Your task to perform on an android device: change your default location settings in chrome Image 0: 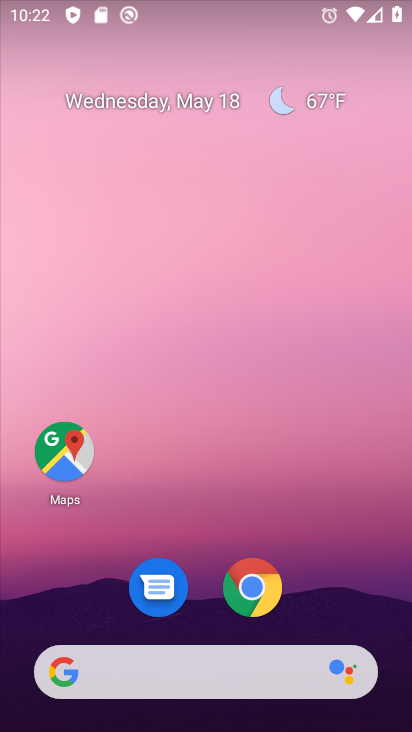
Step 0: click (250, 576)
Your task to perform on an android device: change your default location settings in chrome Image 1: 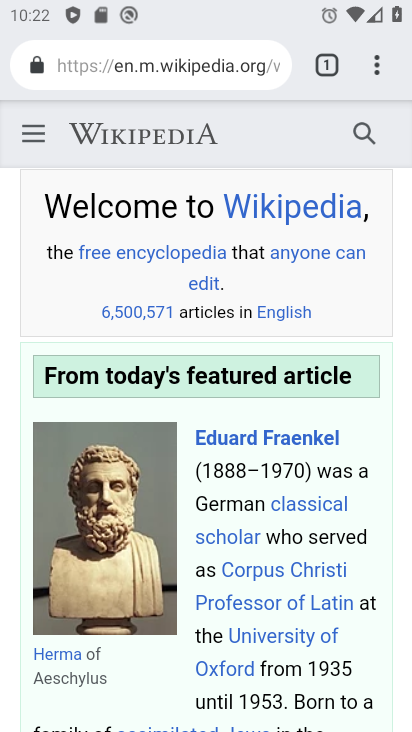
Step 1: click (374, 51)
Your task to perform on an android device: change your default location settings in chrome Image 2: 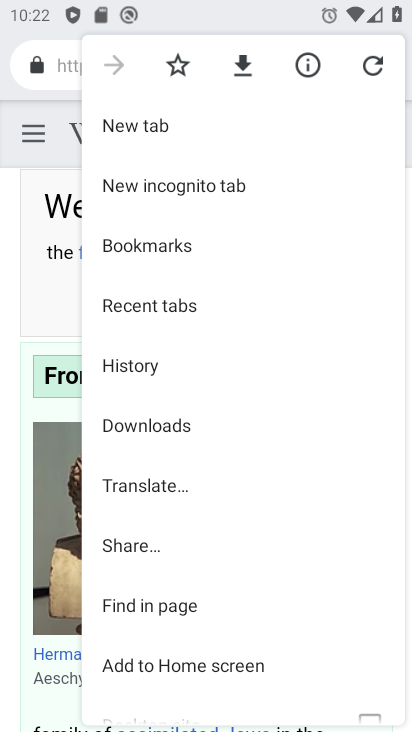
Step 2: drag from (261, 603) to (257, 200)
Your task to perform on an android device: change your default location settings in chrome Image 3: 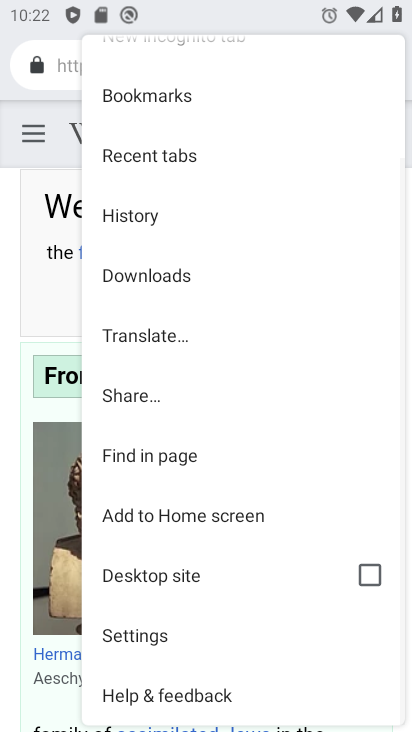
Step 3: drag from (233, 589) to (261, 173)
Your task to perform on an android device: change your default location settings in chrome Image 4: 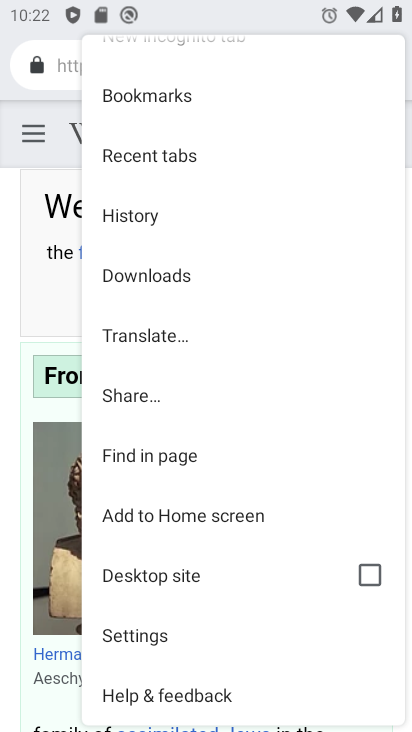
Step 4: click (159, 626)
Your task to perform on an android device: change your default location settings in chrome Image 5: 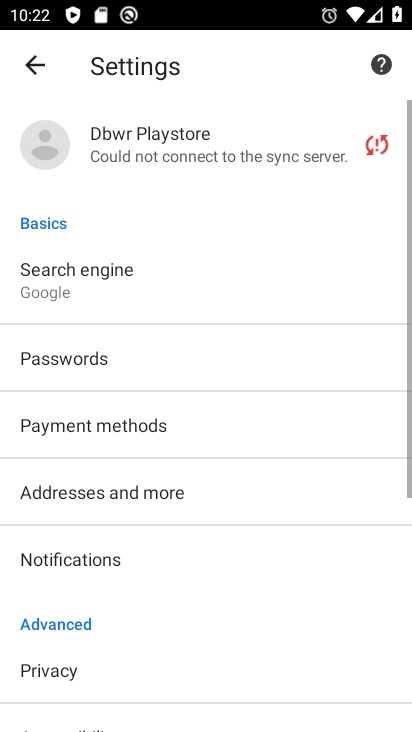
Step 5: drag from (168, 636) to (187, 244)
Your task to perform on an android device: change your default location settings in chrome Image 6: 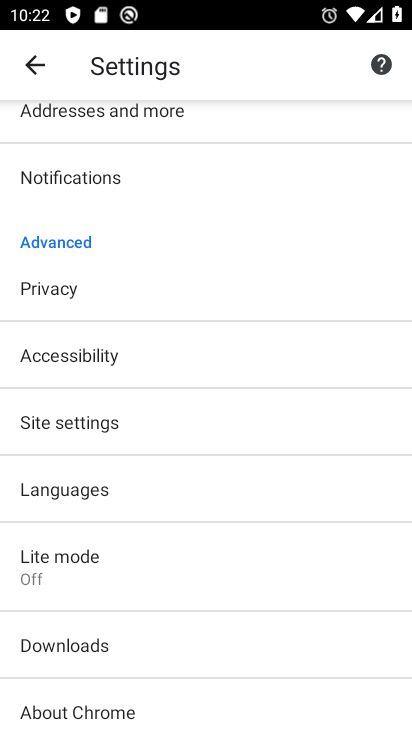
Step 6: drag from (224, 615) to (257, 365)
Your task to perform on an android device: change your default location settings in chrome Image 7: 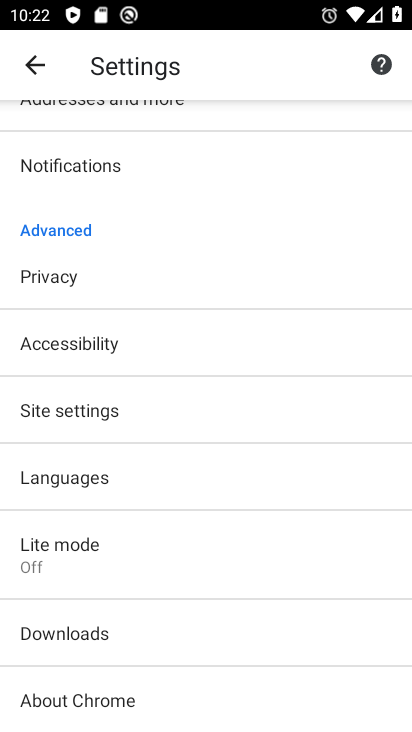
Step 7: drag from (125, 620) to (174, 403)
Your task to perform on an android device: change your default location settings in chrome Image 8: 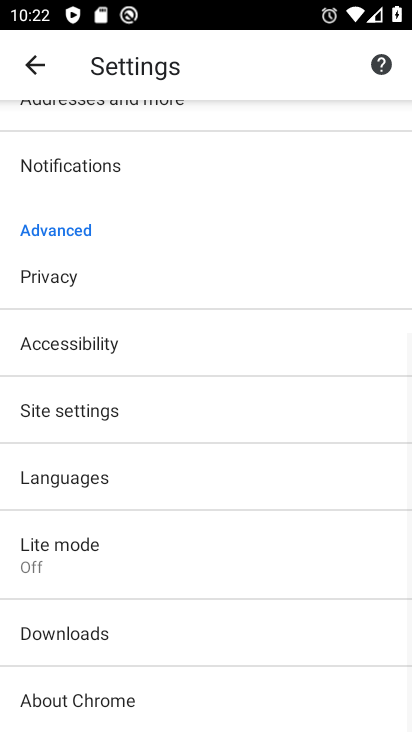
Step 8: drag from (218, 211) to (200, 674)
Your task to perform on an android device: change your default location settings in chrome Image 9: 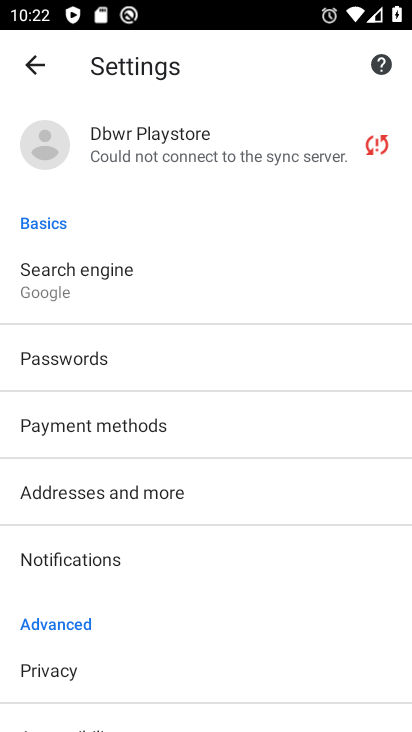
Step 9: drag from (178, 611) to (218, 276)
Your task to perform on an android device: change your default location settings in chrome Image 10: 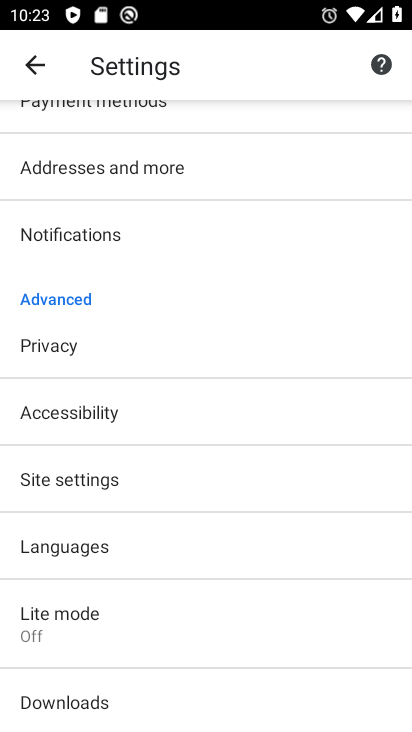
Step 10: click (169, 471)
Your task to perform on an android device: change your default location settings in chrome Image 11: 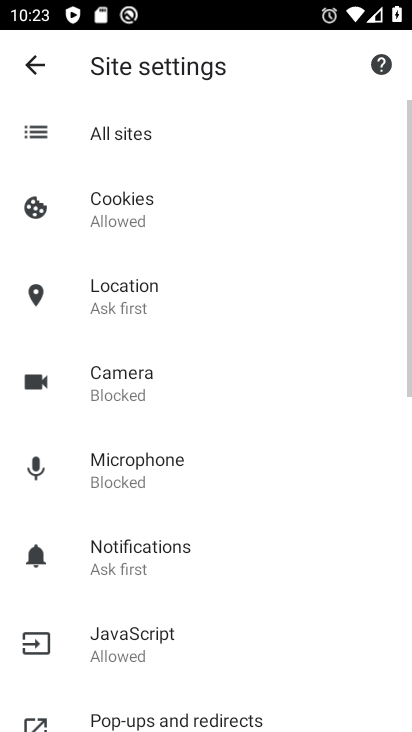
Step 11: task complete